Your task to perform on an android device: Go to Google Image 0: 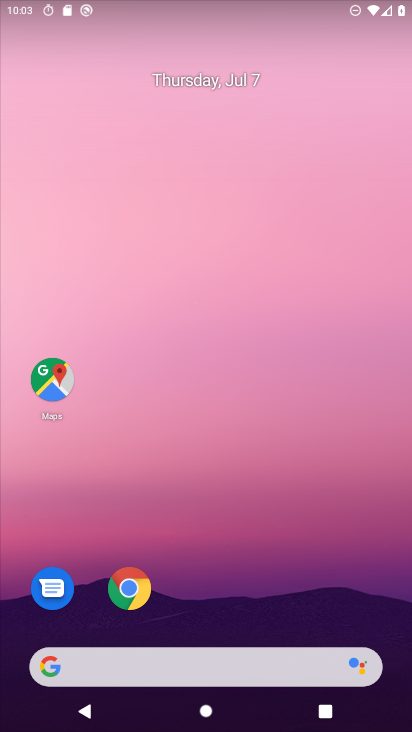
Step 0: click (236, 682)
Your task to perform on an android device: Go to Google Image 1: 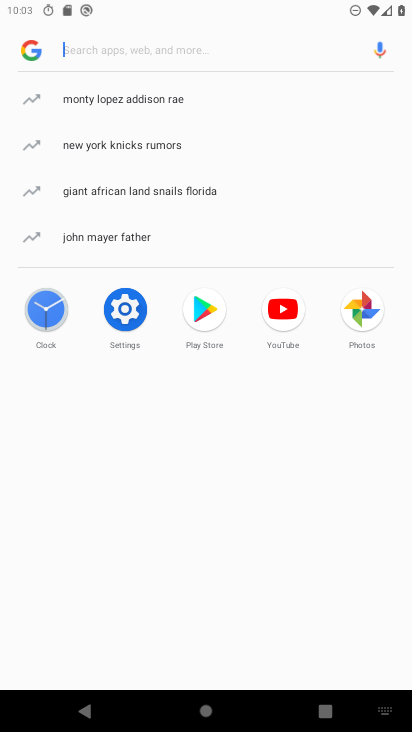
Step 1: task complete